Your task to perform on an android device: Go to notification settings Image 0: 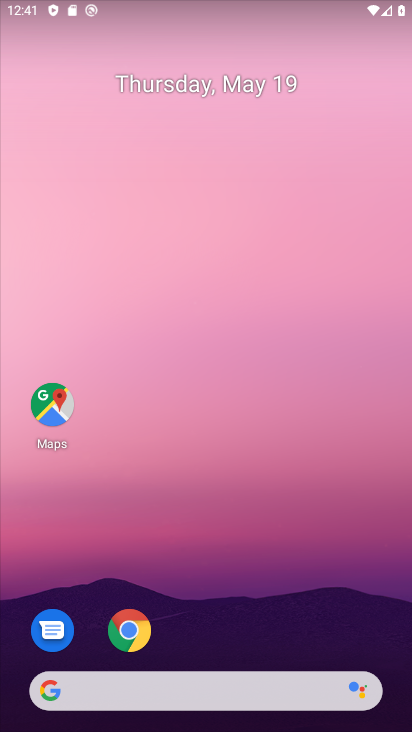
Step 0: drag from (188, 621) to (198, 77)
Your task to perform on an android device: Go to notification settings Image 1: 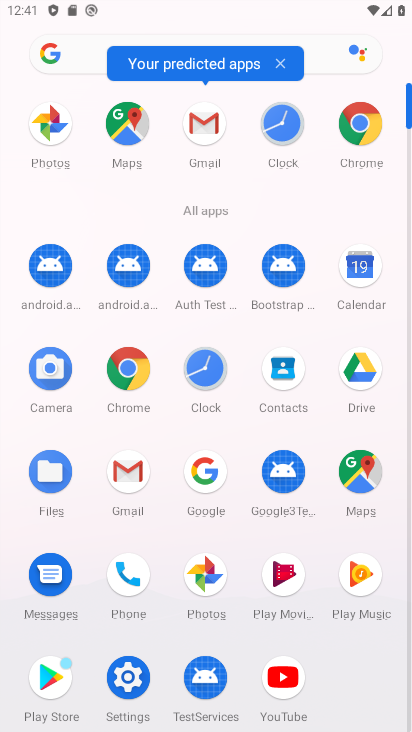
Step 1: click (116, 666)
Your task to perform on an android device: Go to notification settings Image 2: 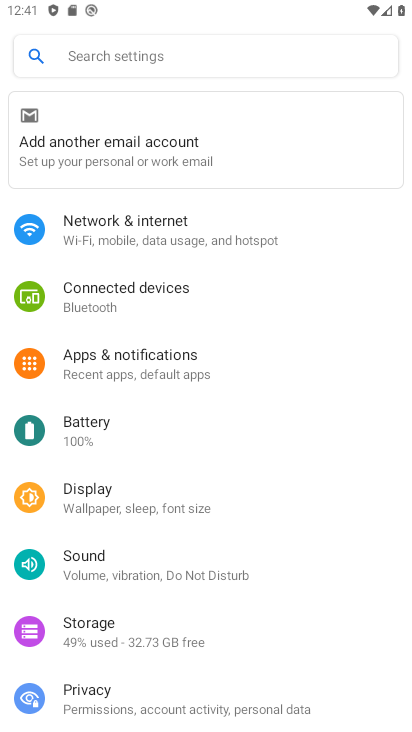
Step 2: click (205, 370)
Your task to perform on an android device: Go to notification settings Image 3: 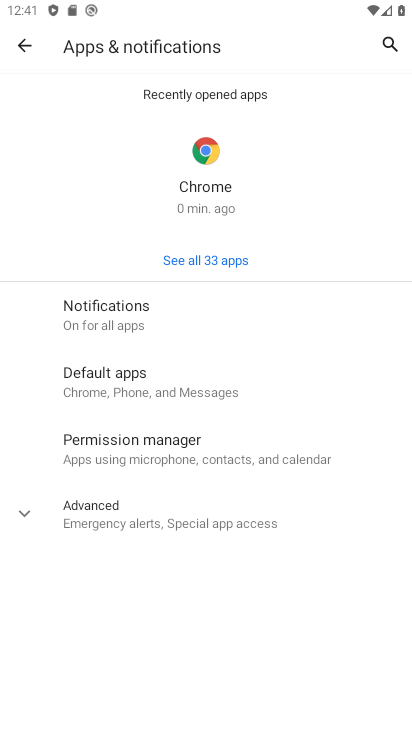
Step 3: click (71, 306)
Your task to perform on an android device: Go to notification settings Image 4: 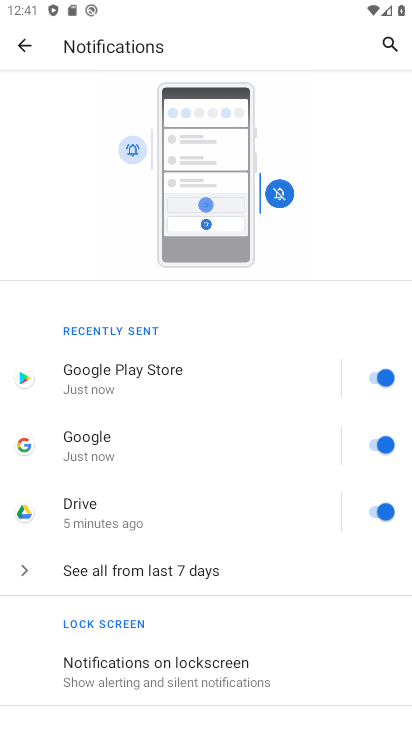
Step 4: task complete